Your task to perform on an android device: turn notification dots off Image 0: 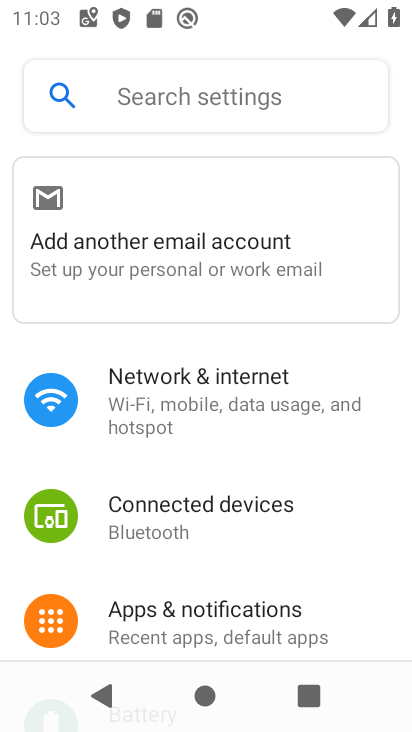
Step 0: click (204, 625)
Your task to perform on an android device: turn notification dots off Image 1: 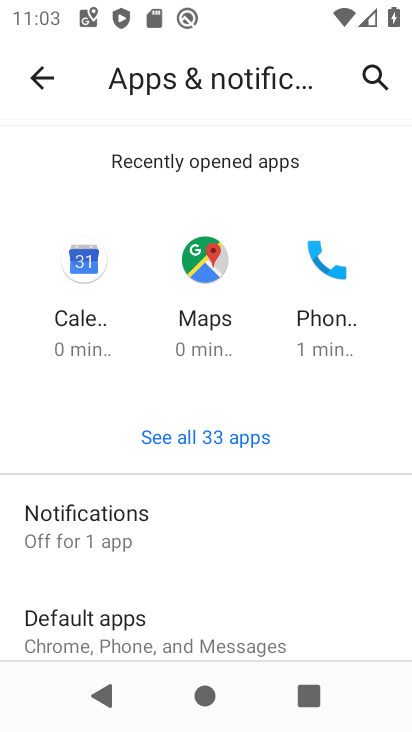
Step 1: click (166, 530)
Your task to perform on an android device: turn notification dots off Image 2: 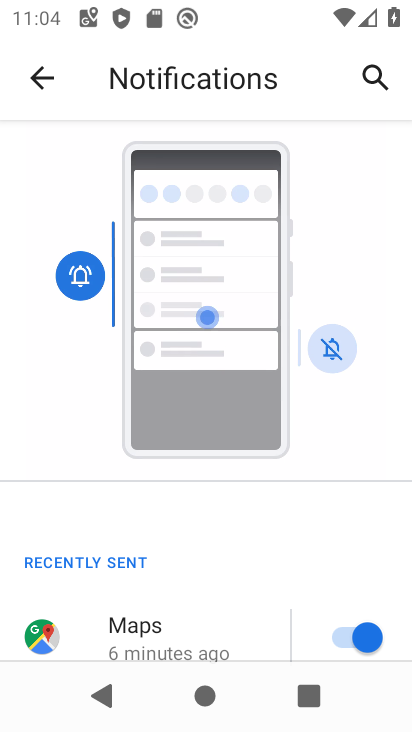
Step 2: drag from (214, 633) to (225, 134)
Your task to perform on an android device: turn notification dots off Image 3: 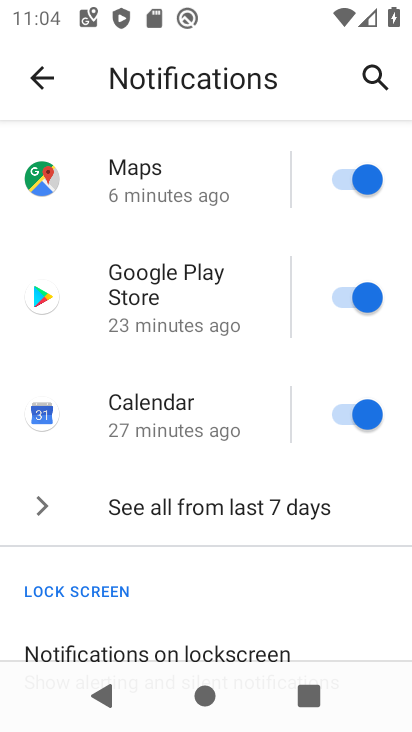
Step 3: drag from (253, 615) to (291, 191)
Your task to perform on an android device: turn notification dots off Image 4: 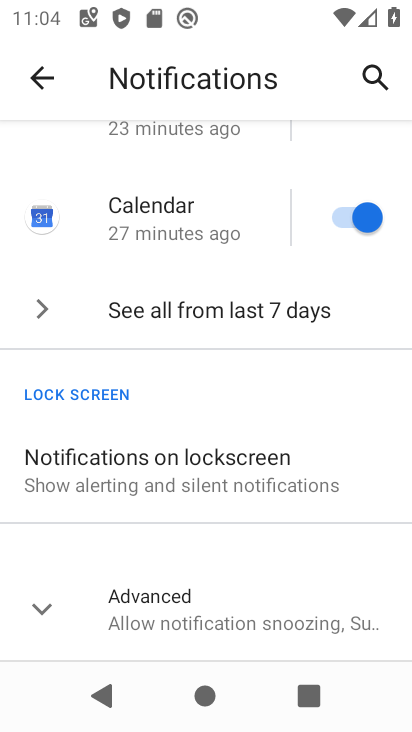
Step 4: click (201, 602)
Your task to perform on an android device: turn notification dots off Image 5: 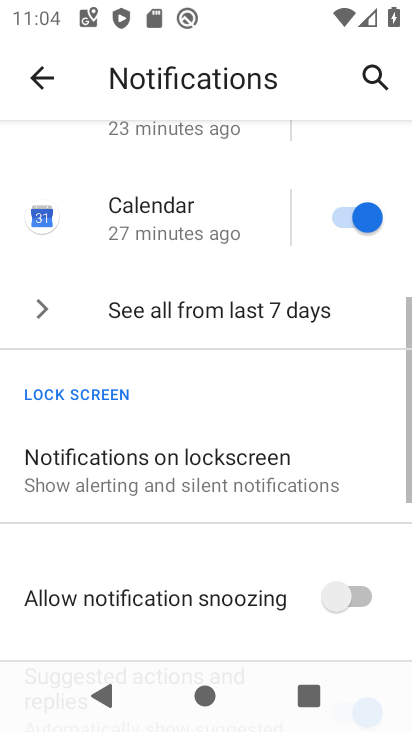
Step 5: drag from (214, 594) to (284, 125)
Your task to perform on an android device: turn notification dots off Image 6: 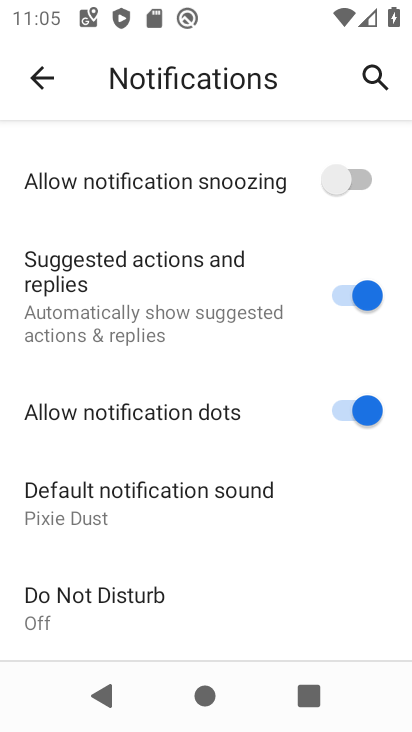
Step 6: click (354, 411)
Your task to perform on an android device: turn notification dots off Image 7: 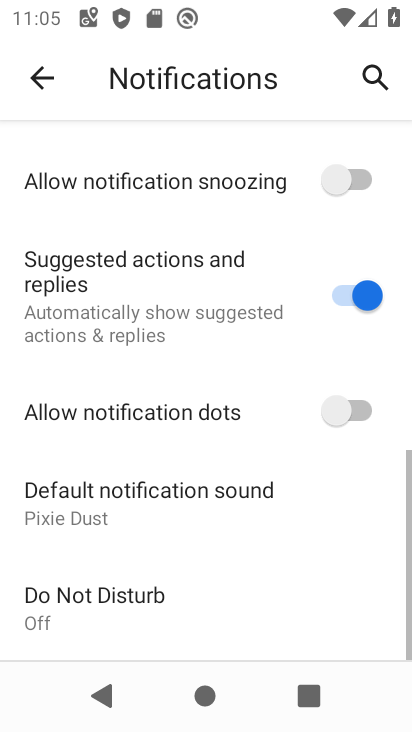
Step 7: task complete